Your task to perform on an android device: turn on improve location accuracy Image 0: 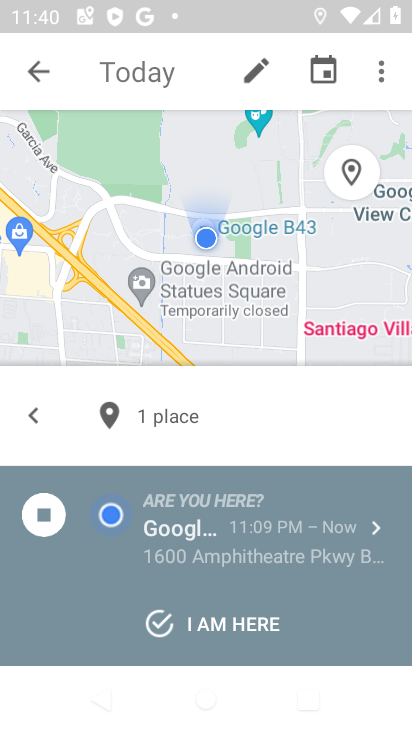
Step 0: press home button
Your task to perform on an android device: turn on improve location accuracy Image 1: 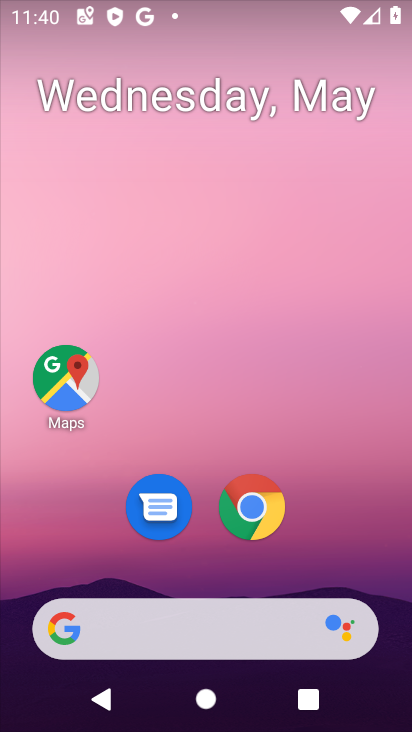
Step 1: drag from (346, 544) to (338, 118)
Your task to perform on an android device: turn on improve location accuracy Image 2: 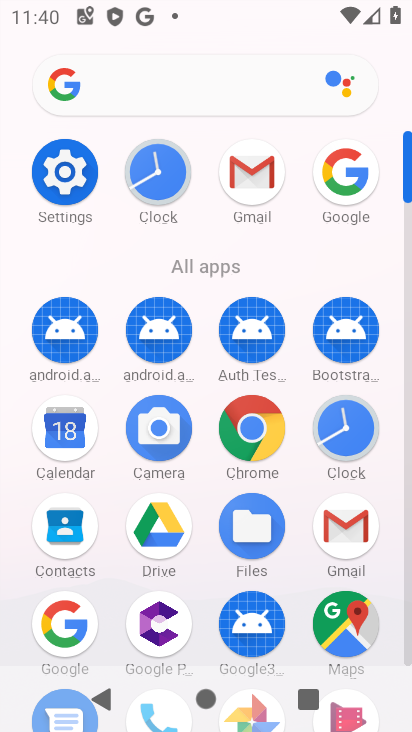
Step 2: click (402, 614)
Your task to perform on an android device: turn on improve location accuracy Image 3: 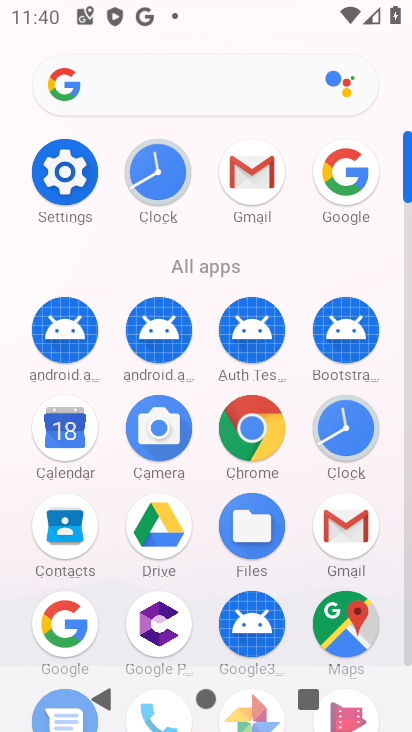
Step 3: click (56, 206)
Your task to perform on an android device: turn on improve location accuracy Image 4: 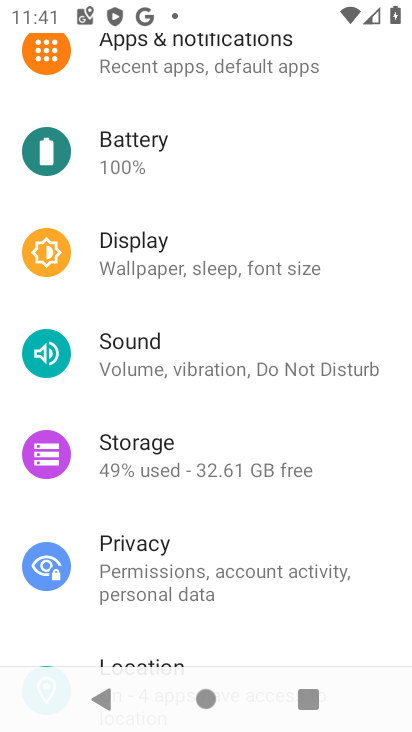
Step 4: drag from (201, 601) to (191, 294)
Your task to perform on an android device: turn on improve location accuracy Image 5: 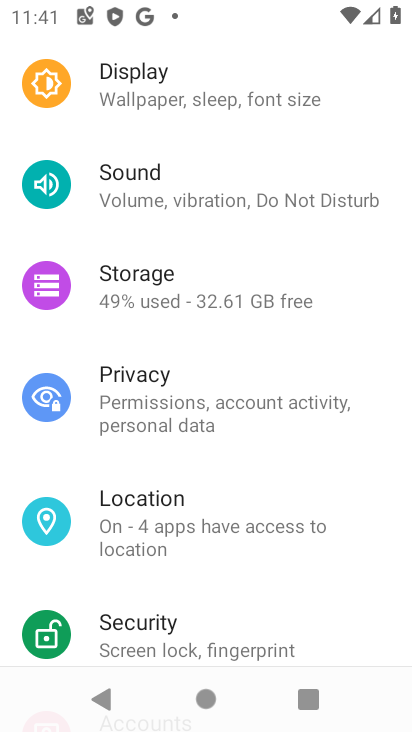
Step 5: drag from (217, 558) to (268, 332)
Your task to perform on an android device: turn on improve location accuracy Image 6: 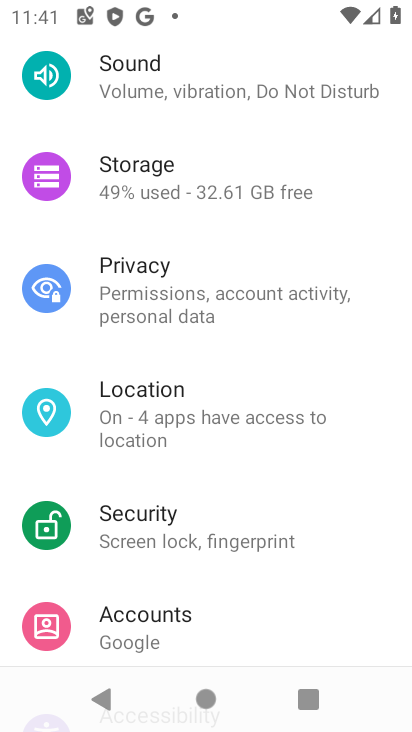
Step 6: click (148, 424)
Your task to perform on an android device: turn on improve location accuracy Image 7: 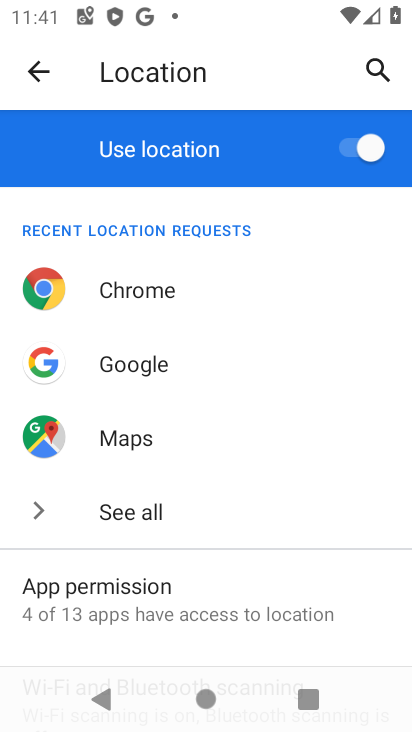
Step 7: drag from (193, 507) to (189, 285)
Your task to perform on an android device: turn on improve location accuracy Image 8: 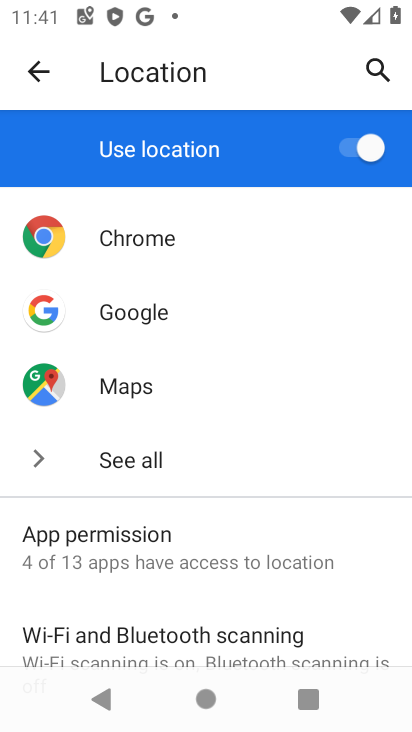
Step 8: drag from (168, 605) to (193, 496)
Your task to perform on an android device: turn on improve location accuracy Image 9: 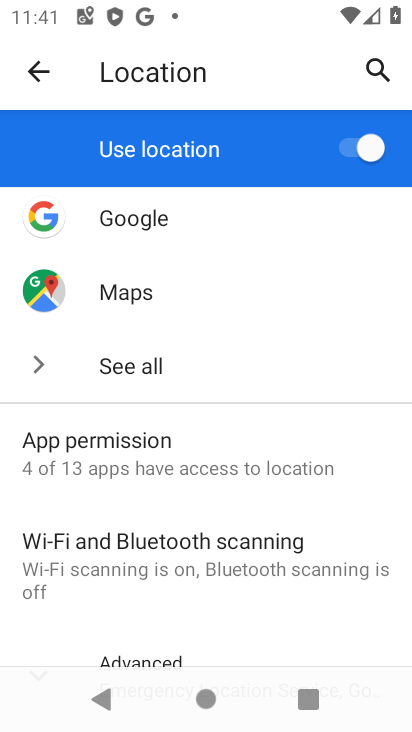
Step 9: drag from (193, 545) to (278, 336)
Your task to perform on an android device: turn on improve location accuracy Image 10: 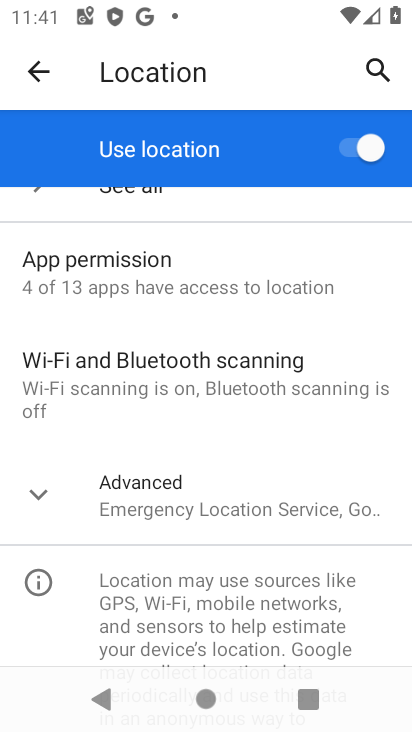
Step 10: click (151, 576)
Your task to perform on an android device: turn on improve location accuracy Image 11: 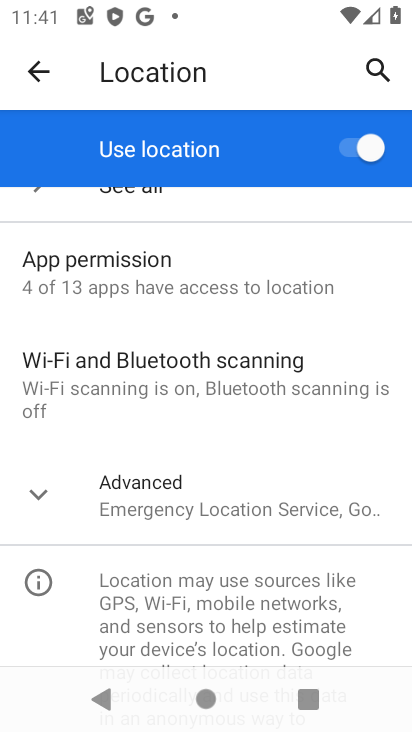
Step 11: click (122, 487)
Your task to perform on an android device: turn on improve location accuracy Image 12: 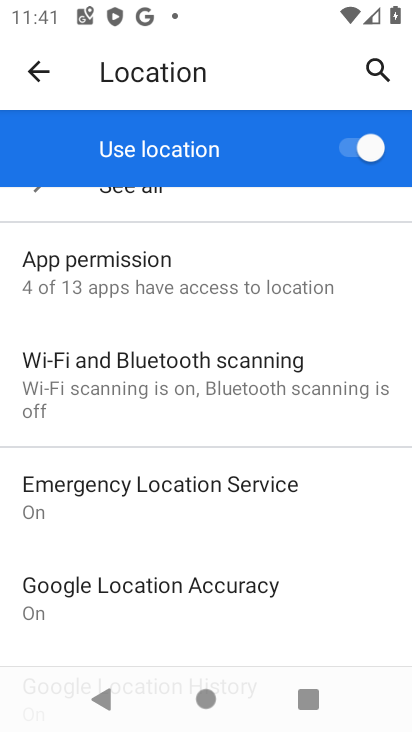
Step 12: drag from (193, 536) to (264, 378)
Your task to perform on an android device: turn on improve location accuracy Image 13: 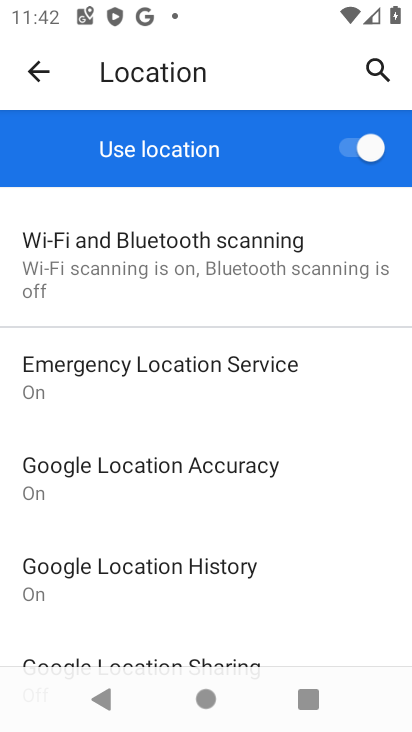
Step 13: click (184, 476)
Your task to perform on an android device: turn on improve location accuracy Image 14: 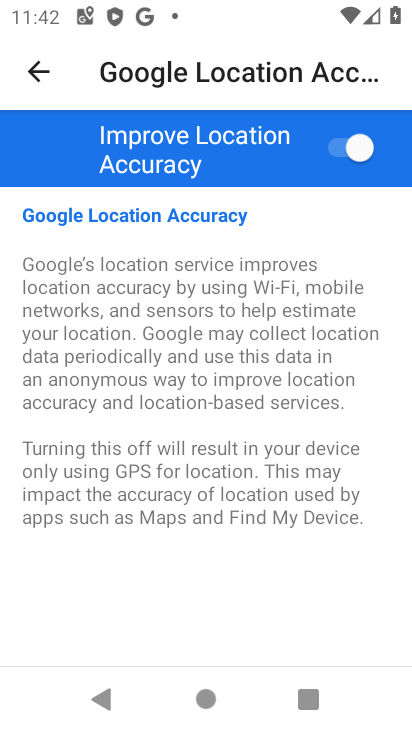
Step 14: task complete